Your task to perform on an android device: toggle notification dots Image 0: 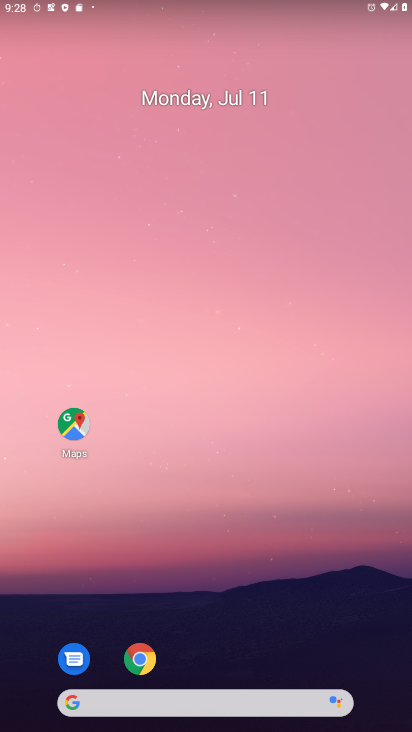
Step 0: drag from (189, 668) to (287, 99)
Your task to perform on an android device: toggle notification dots Image 1: 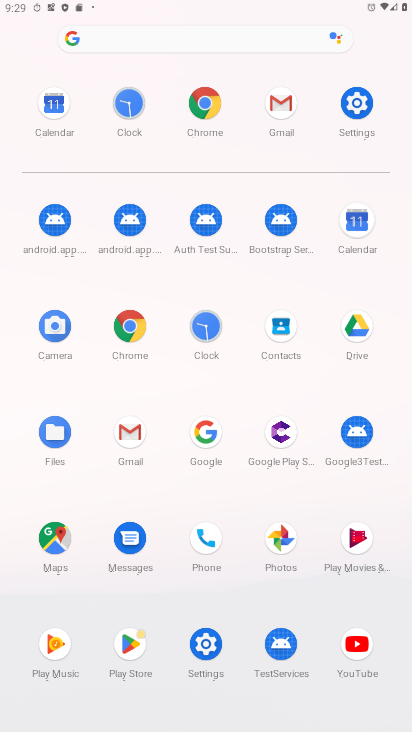
Step 1: click (203, 638)
Your task to perform on an android device: toggle notification dots Image 2: 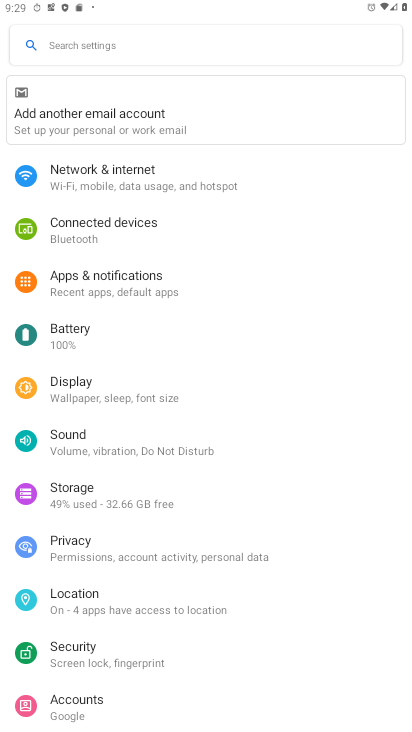
Step 2: drag from (212, 546) to (342, 198)
Your task to perform on an android device: toggle notification dots Image 3: 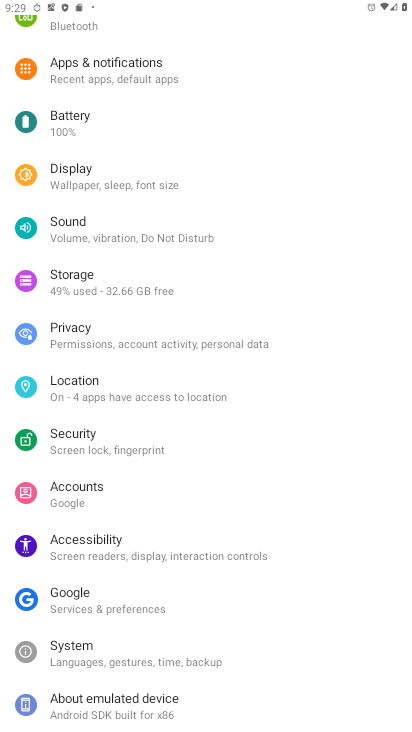
Step 3: click (171, 65)
Your task to perform on an android device: toggle notification dots Image 4: 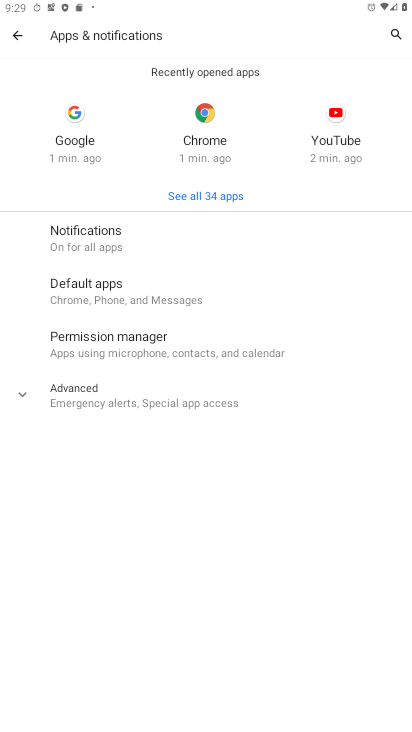
Step 4: click (107, 239)
Your task to perform on an android device: toggle notification dots Image 5: 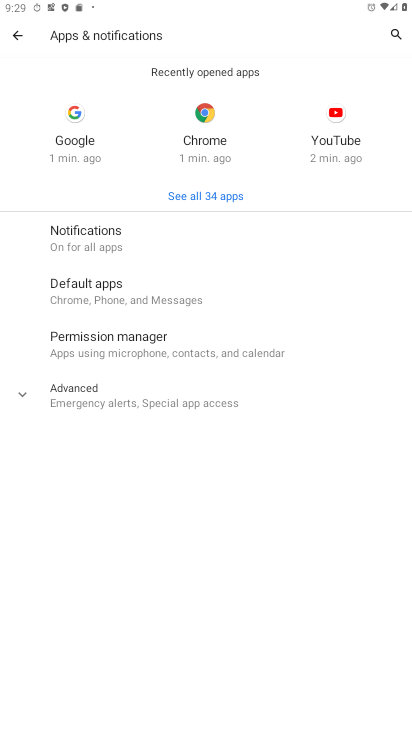
Step 5: click (106, 239)
Your task to perform on an android device: toggle notification dots Image 6: 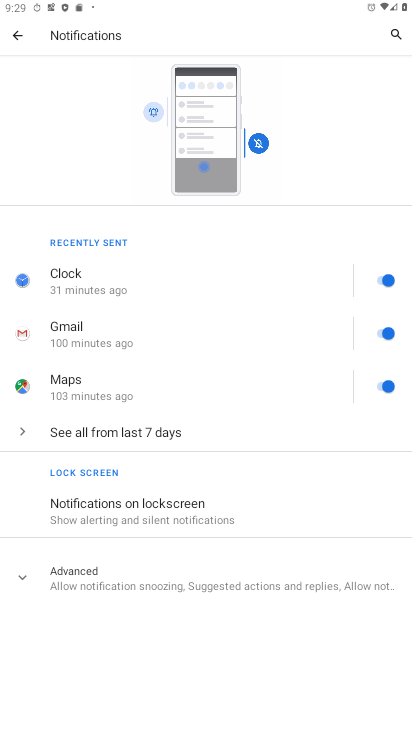
Step 6: drag from (217, 540) to (329, 127)
Your task to perform on an android device: toggle notification dots Image 7: 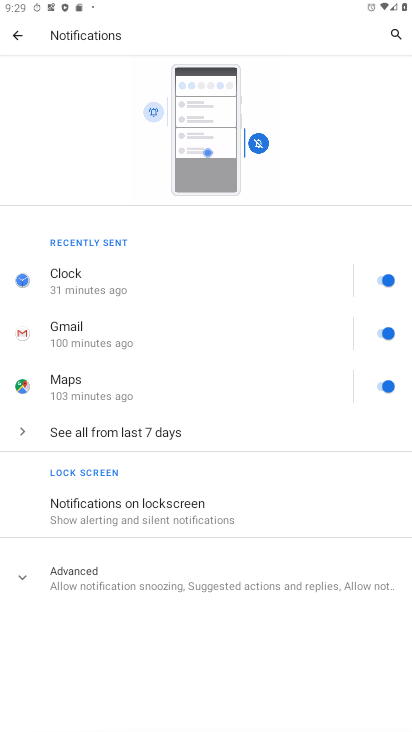
Step 7: click (125, 576)
Your task to perform on an android device: toggle notification dots Image 8: 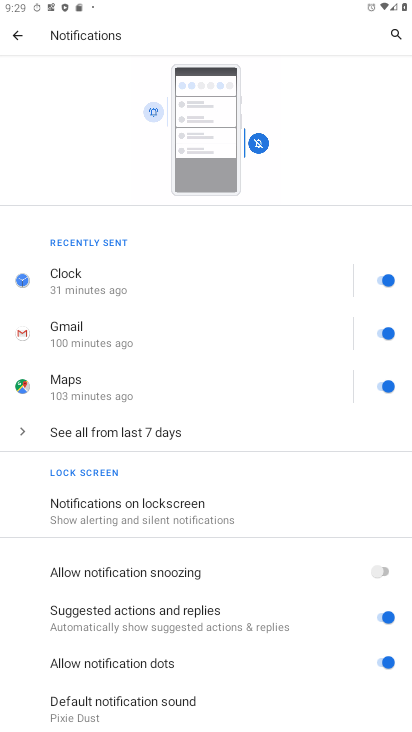
Step 8: drag from (223, 608) to (328, 212)
Your task to perform on an android device: toggle notification dots Image 9: 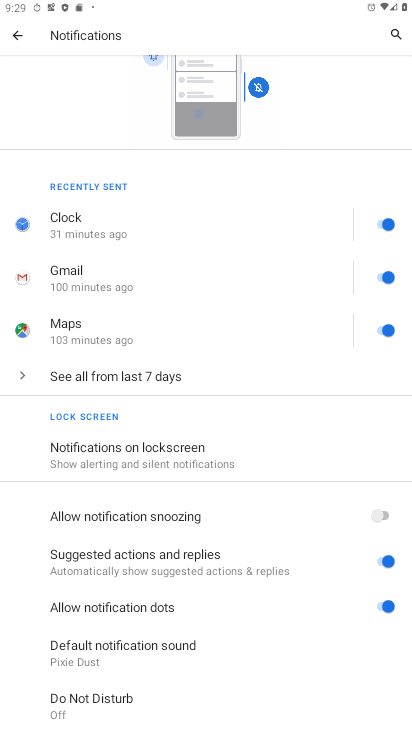
Step 9: click (384, 604)
Your task to perform on an android device: toggle notification dots Image 10: 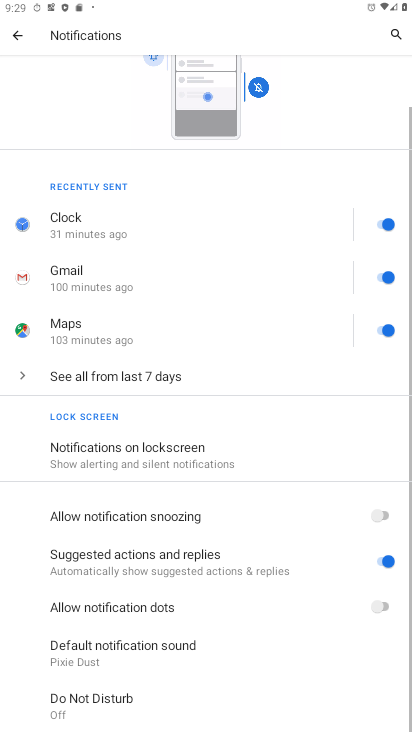
Step 10: task complete